Your task to perform on an android device: Search for Mexican restaurants on Maps Image 0: 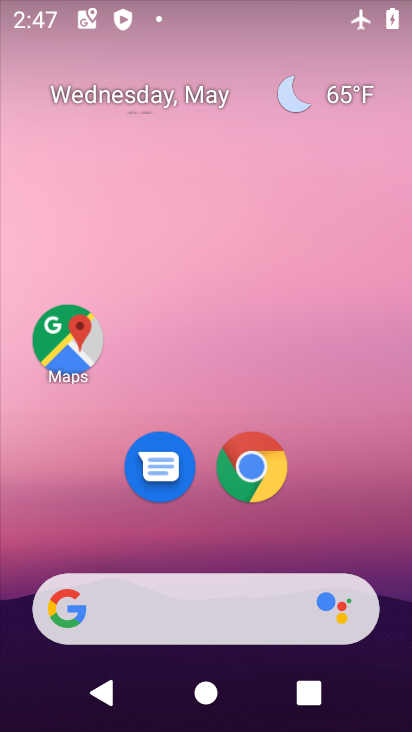
Step 0: drag from (323, 515) to (321, 302)
Your task to perform on an android device: Search for Mexican restaurants on Maps Image 1: 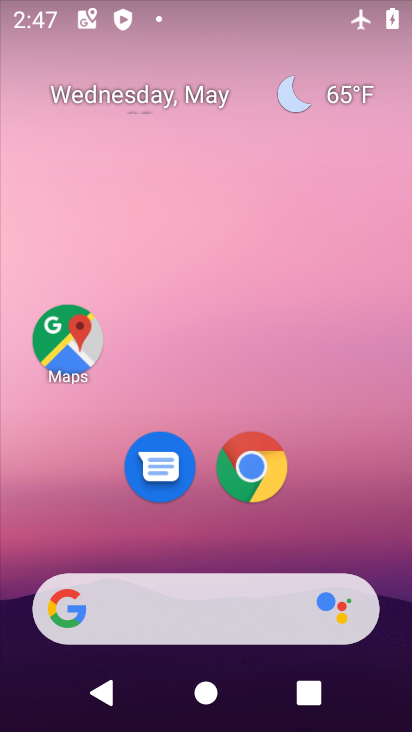
Step 1: click (61, 349)
Your task to perform on an android device: Search for Mexican restaurants on Maps Image 2: 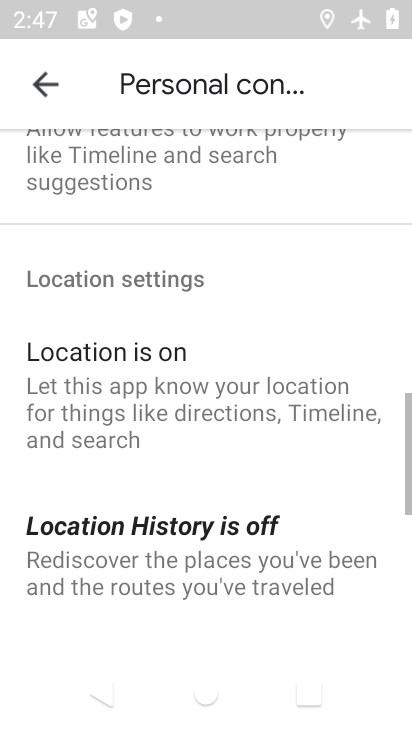
Step 2: click (39, 68)
Your task to perform on an android device: Search for Mexican restaurants on Maps Image 3: 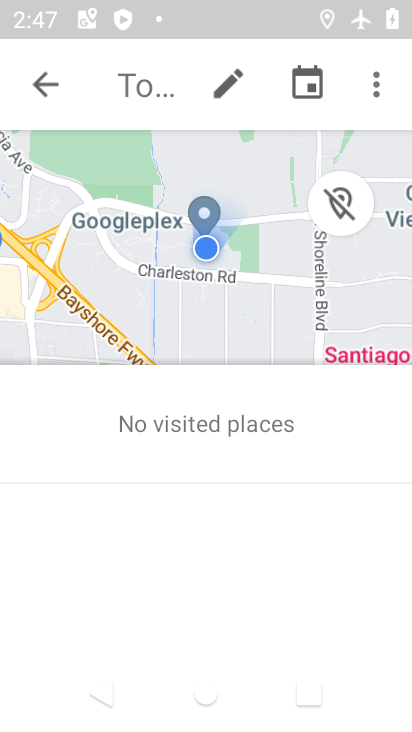
Step 3: click (38, 68)
Your task to perform on an android device: Search for Mexican restaurants on Maps Image 4: 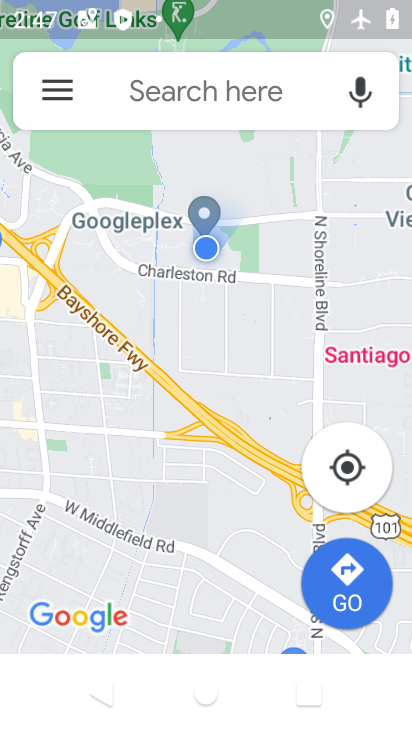
Step 4: click (181, 85)
Your task to perform on an android device: Search for Mexican restaurants on Maps Image 5: 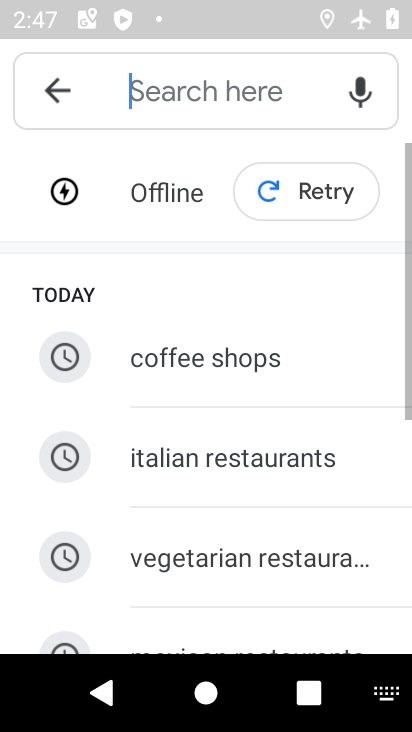
Step 5: drag from (255, 571) to (256, 352)
Your task to perform on an android device: Search for Mexican restaurants on Maps Image 6: 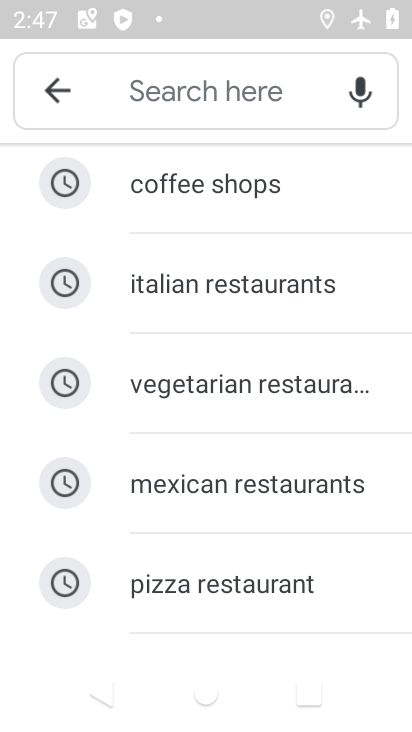
Step 6: click (222, 494)
Your task to perform on an android device: Search for Mexican restaurants on Maps Image 7: 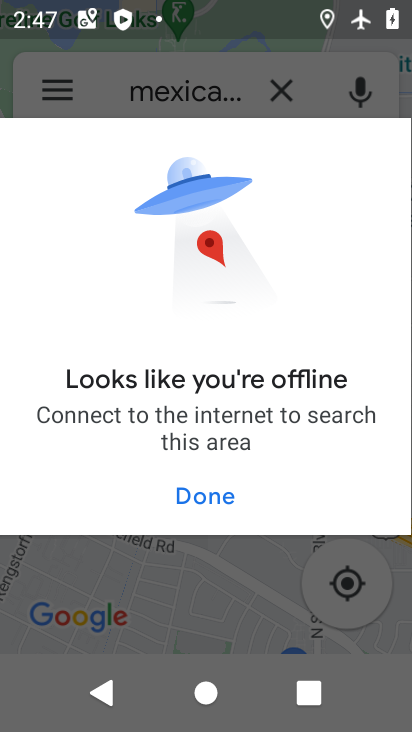
Step 7: click (184, 474)
Your task to perform on an android device: Search for Mexican restaurants on Maps Image 8: 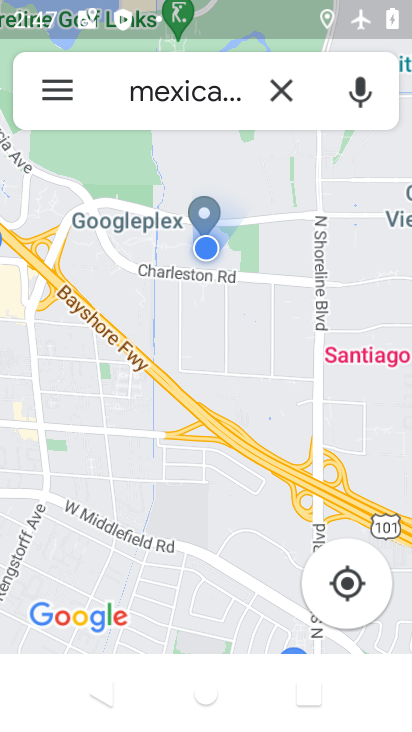
Step 8: task complete